Your task to perform on an android device: Open internet settings Image 0: 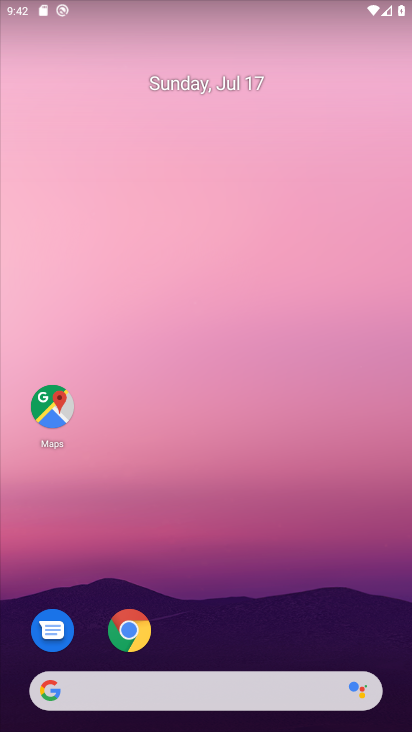
Step 0: drag from (194, 656) to (208, 256)
Your task to perform on an android device: Open internet settings Image 1: 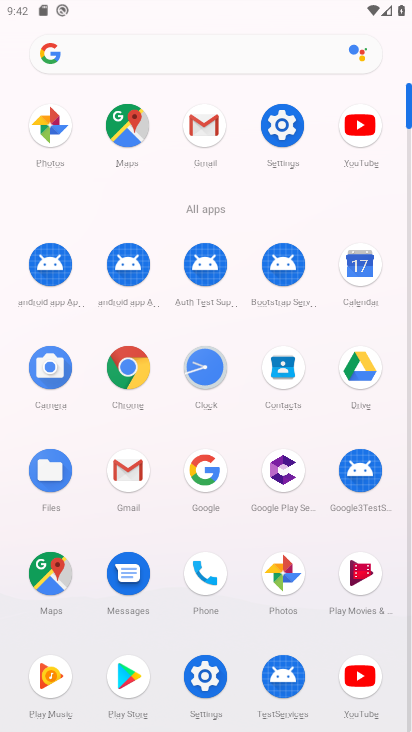
Step 1: click (211, 683)
Your task to perform on an android device: Open internet settings Image 2: 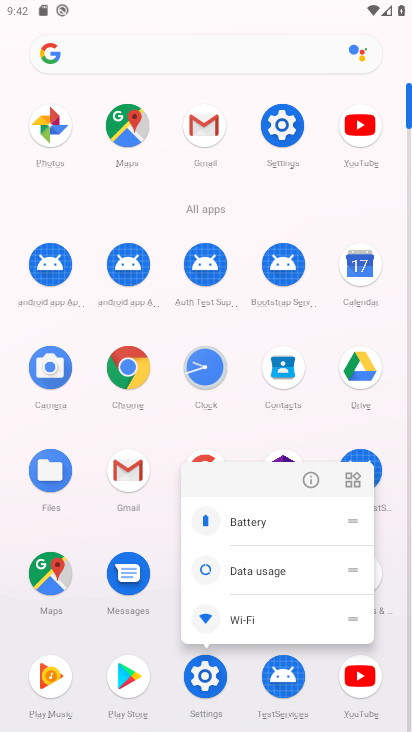
Step 2: click (211, 675)
Your task to perform on an android device: Open internet settings Image 3: 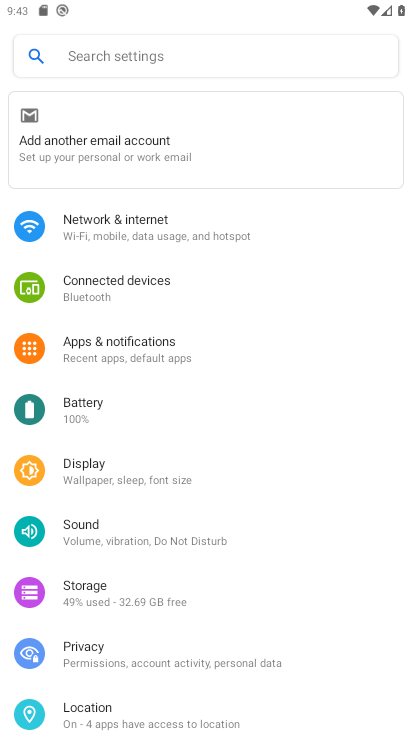
Step 3: click (159, 204)
Your task to perform on an android device: Open internet settings Image 4: 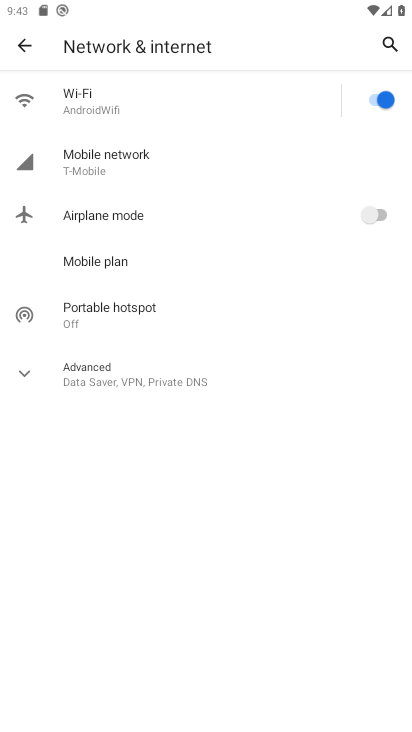
Step 4: task complete